Your task to perform on an android device: Go to Google Image 0: 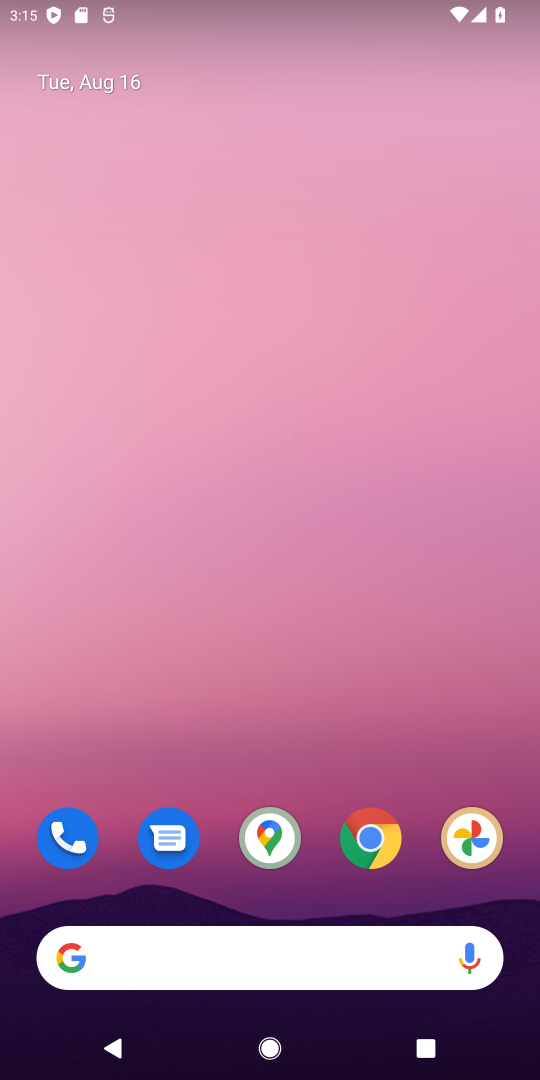
Step 0: click (305, 964)
Your task to perform on an android device: Go to Google Image 1: 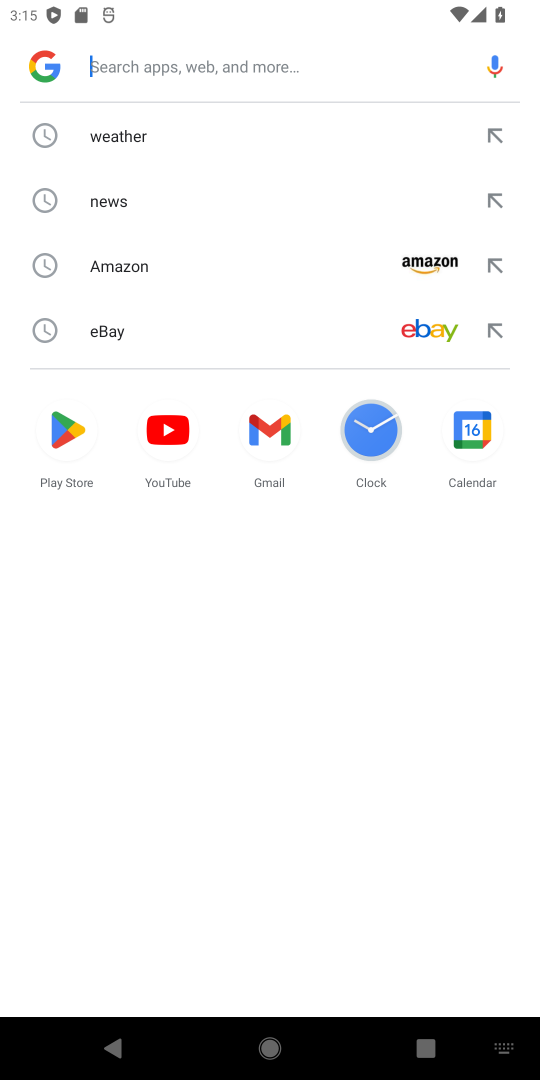
Step 1: task complete